Your task to perform on an android device: Open battery settings Image 0: 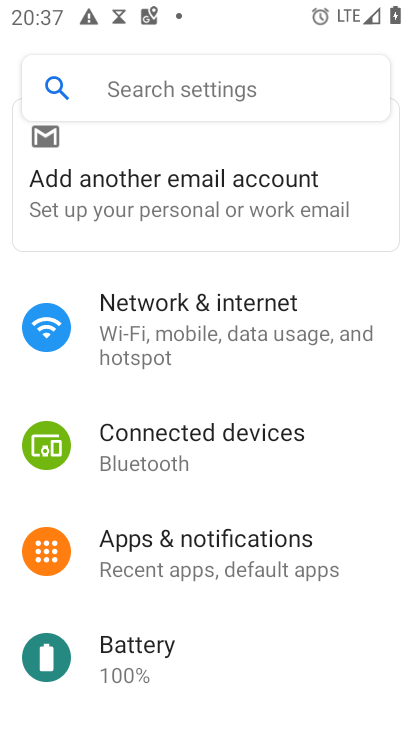
Step 0: click (114, 655)
Your task to perform on an android device: Open battery settings Image 1: 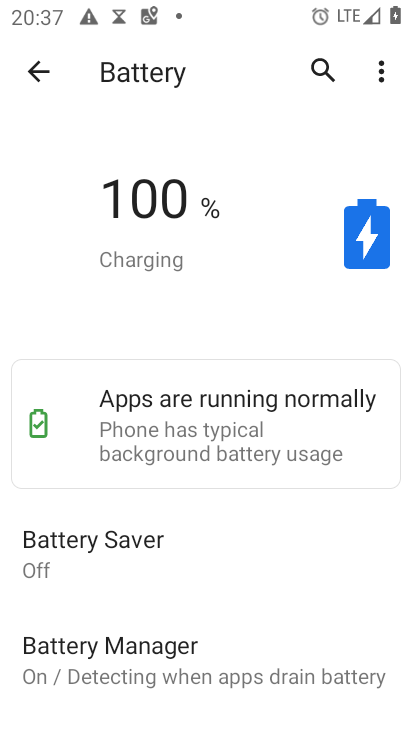
Step 1: task complete